Your task to perform on an android device: Open eBay Image 0: 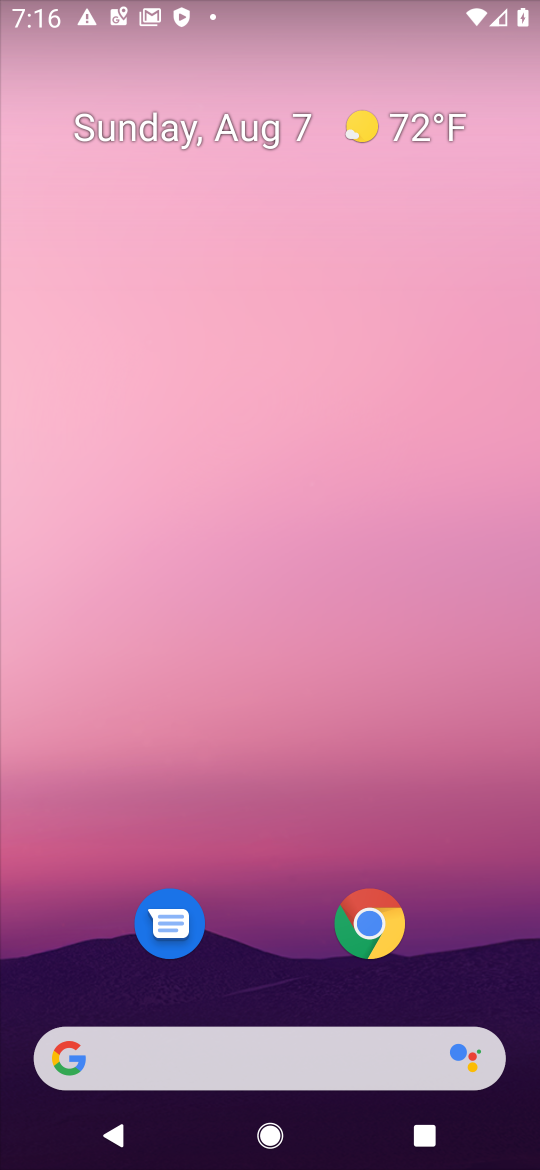
Step 0: drag from (498, 990) to (308, 66)
Your task to perform on an android device: Open eBay Image 1: 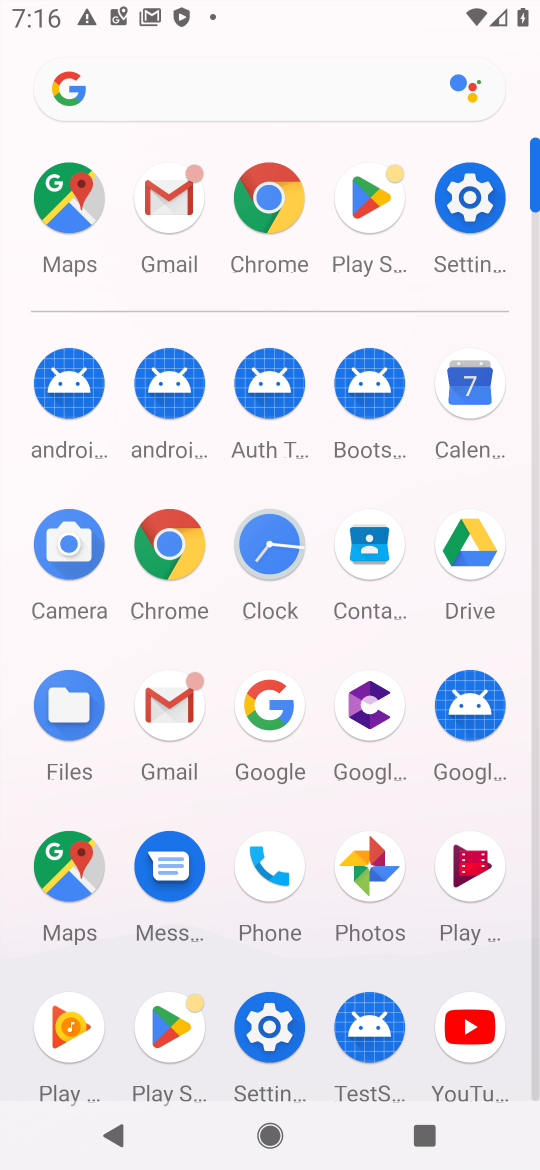
Step 1: click (247, 696)
Your task to perform on an android device: Open eBay Image 2: 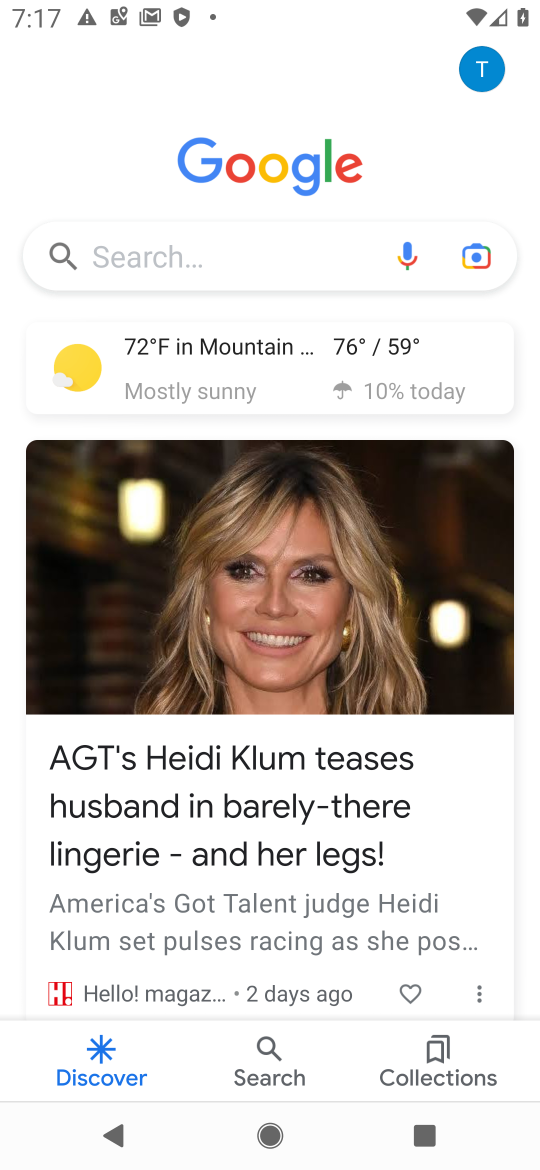
Step 2: click (123, 247)
Your task to perform on an android device: Open eBay Image 3: 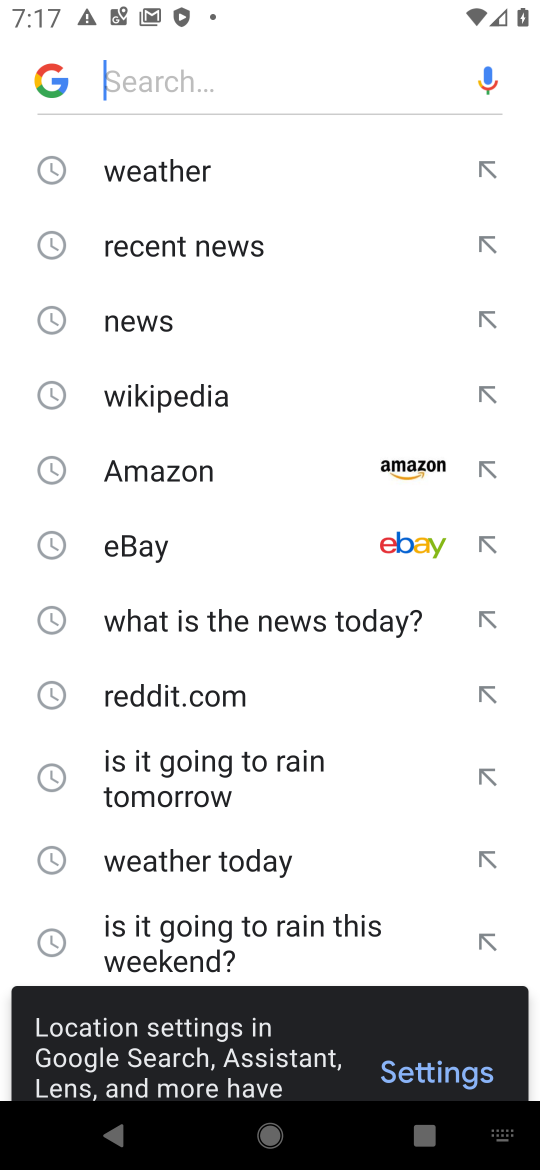
Step 3: click (150, 540)
Your task to perform on an android device: Open eBay Image 4: 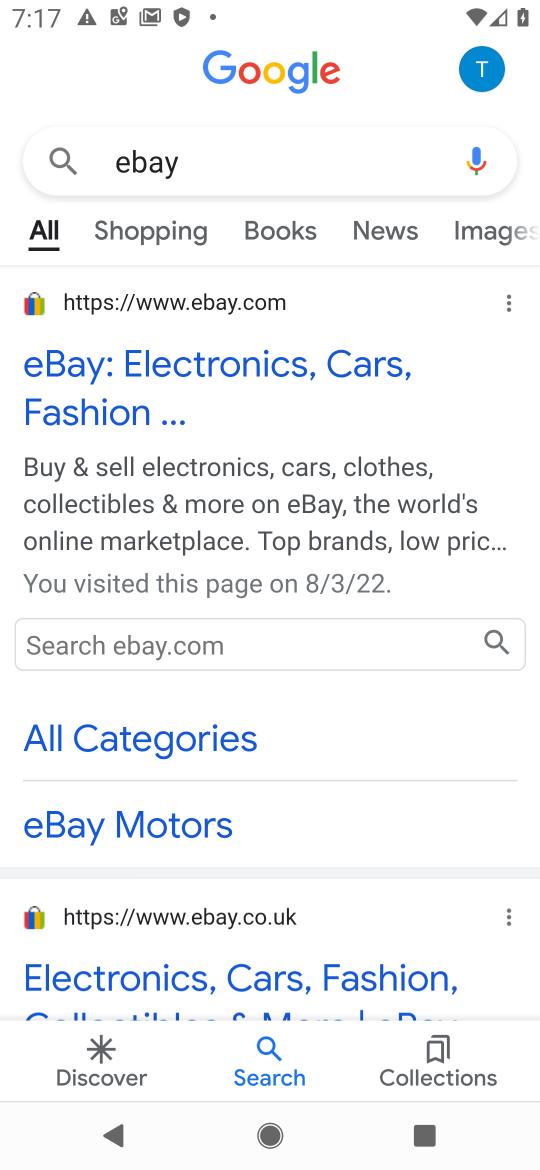
Step 4: task complete